Your task to perform on an android device: turn on showing notifications on the lock screen Image 0: 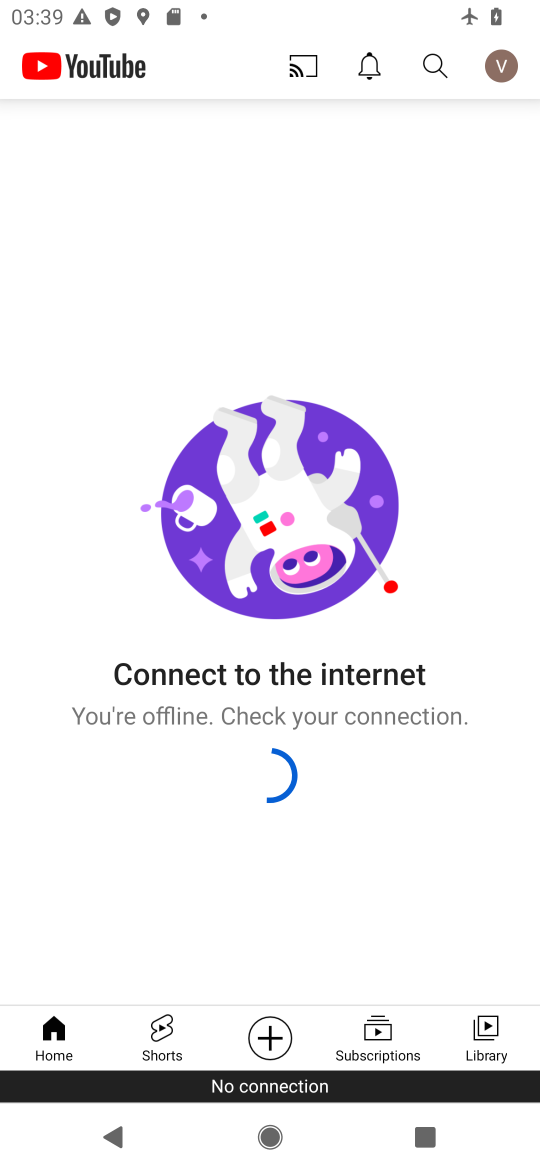
Step 0: press home button
Your task to perform on an android device: turn on showing notifications on the lock screen Image 1: 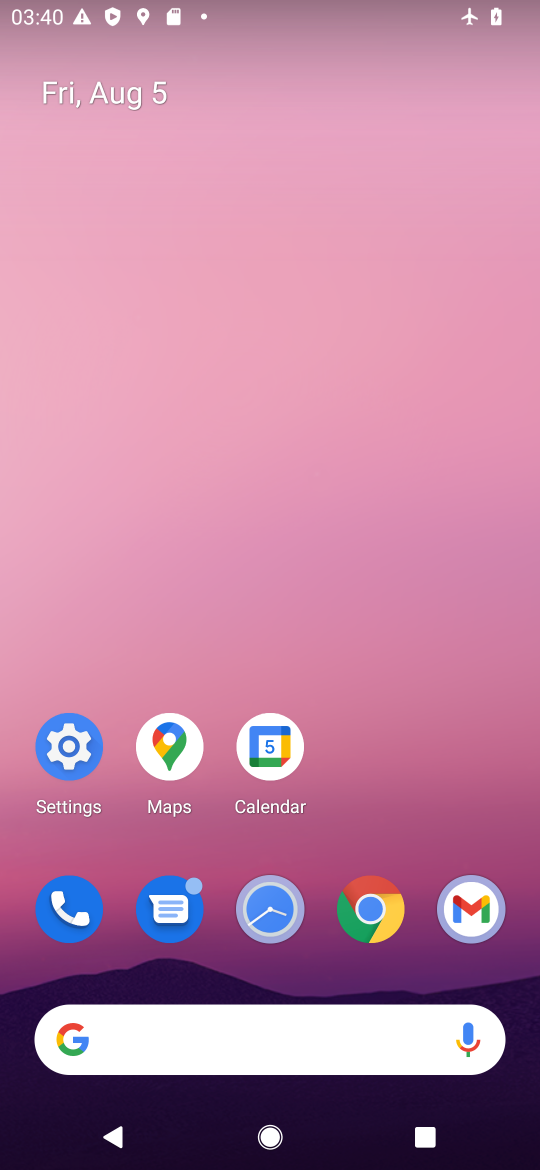
Step 1: click (65, 738)
Your task to perform on an android device: turn on showing notifications on the lock screen Image 2: 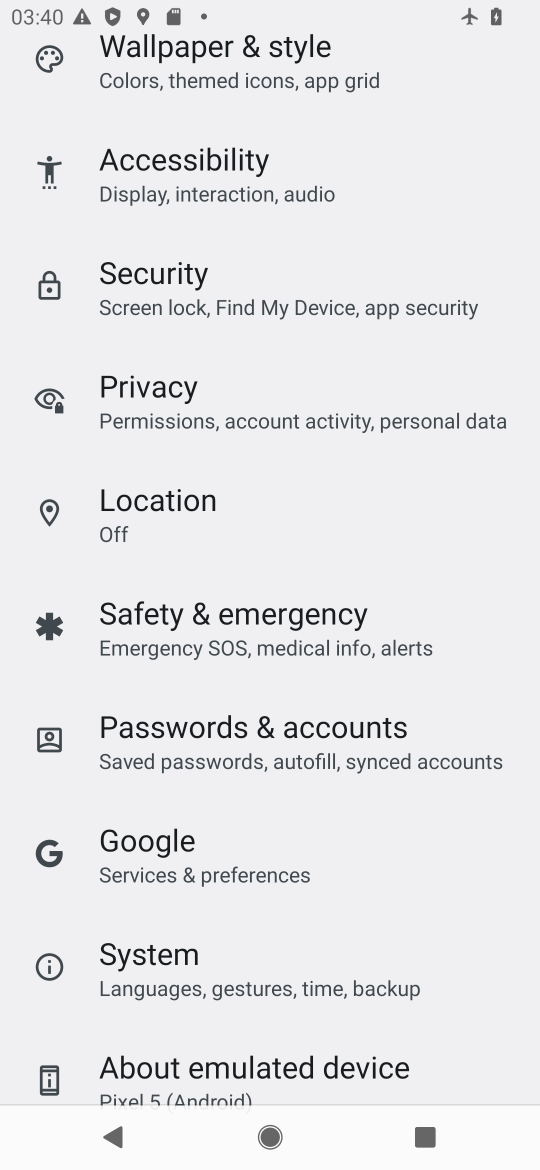
Step 2: drag from (330, 203) to (313, 703)
Your task to perform on an android device: turn on showing notifications on the lock screen Image 3: 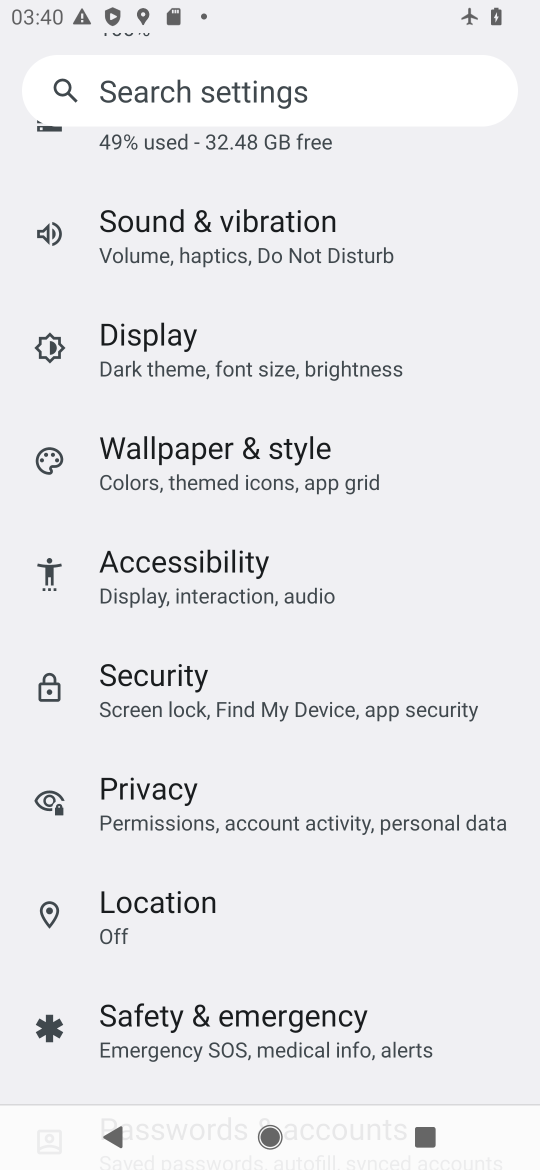
Step 3: drag from (362, 243) to (396, 679)
Your task to perform on an android device: turn on showing notifications on the lock screen Image 4: 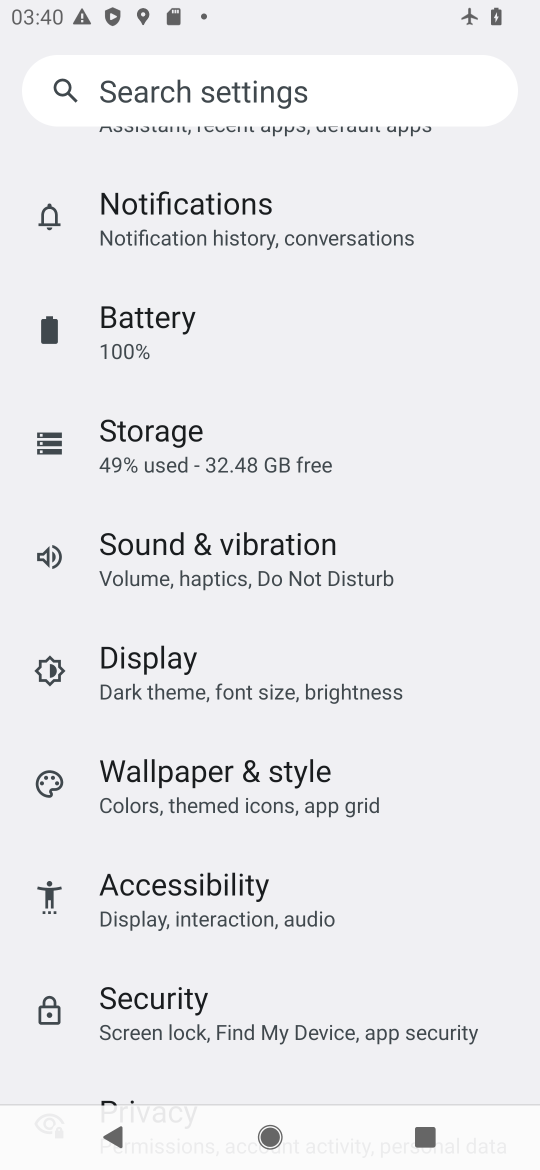
Step 4: drag from (328, 333) to (331, 711)
Your task to perform on an android device: turn on showing notifications on the lock screen Image 5: 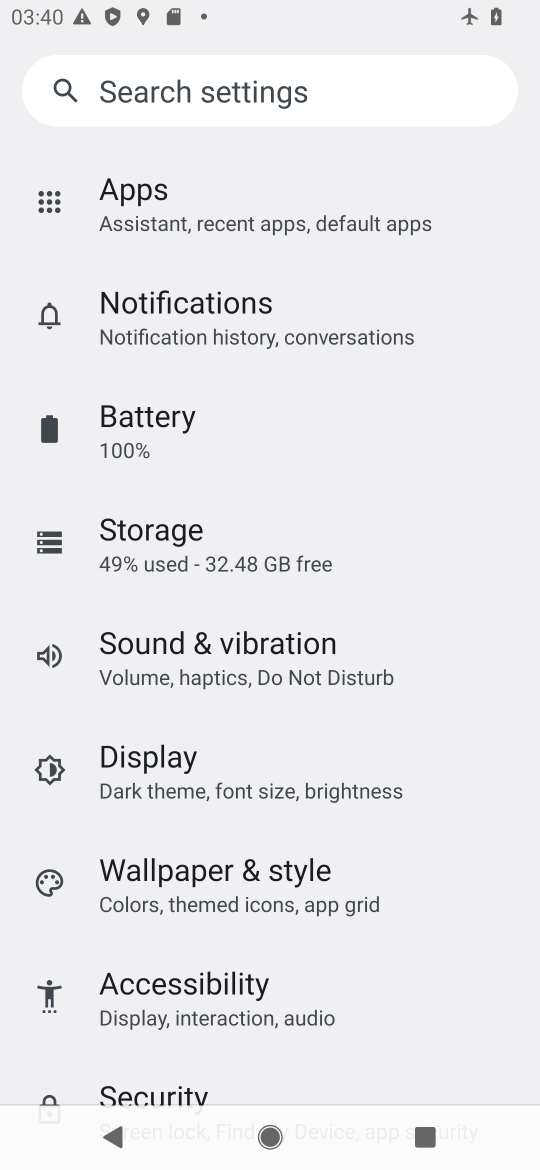
Step 5: click (190, 305)
Your task to perform on an android device: turn on showing notifications on the lock screen Image 6: 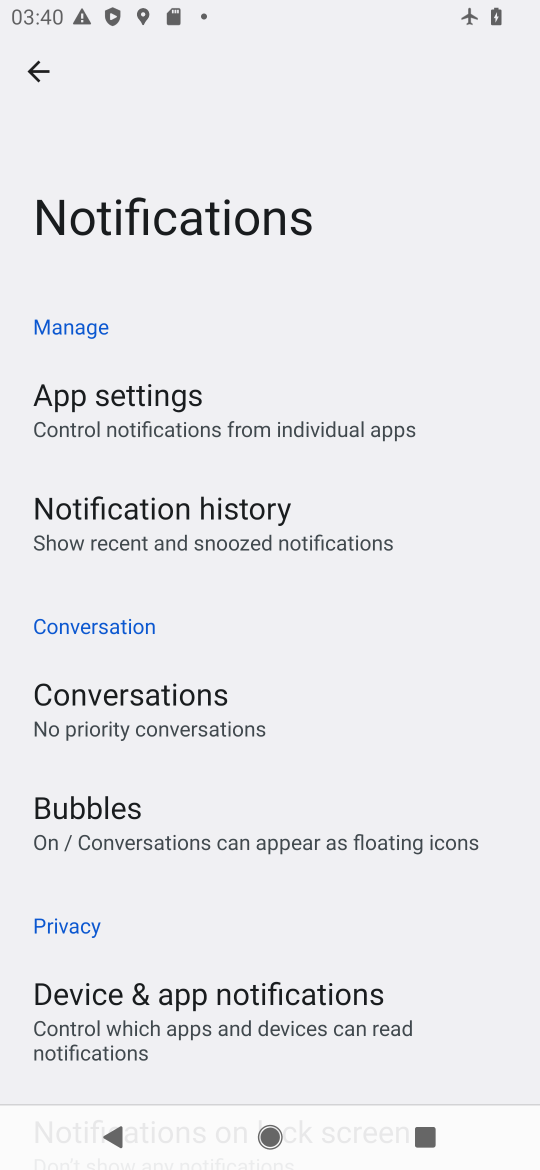
Step 6: drag from (340, 946) to (378, 399)
Your task to perform on an android device: turn on showing notifications on the lock screen Image 7: 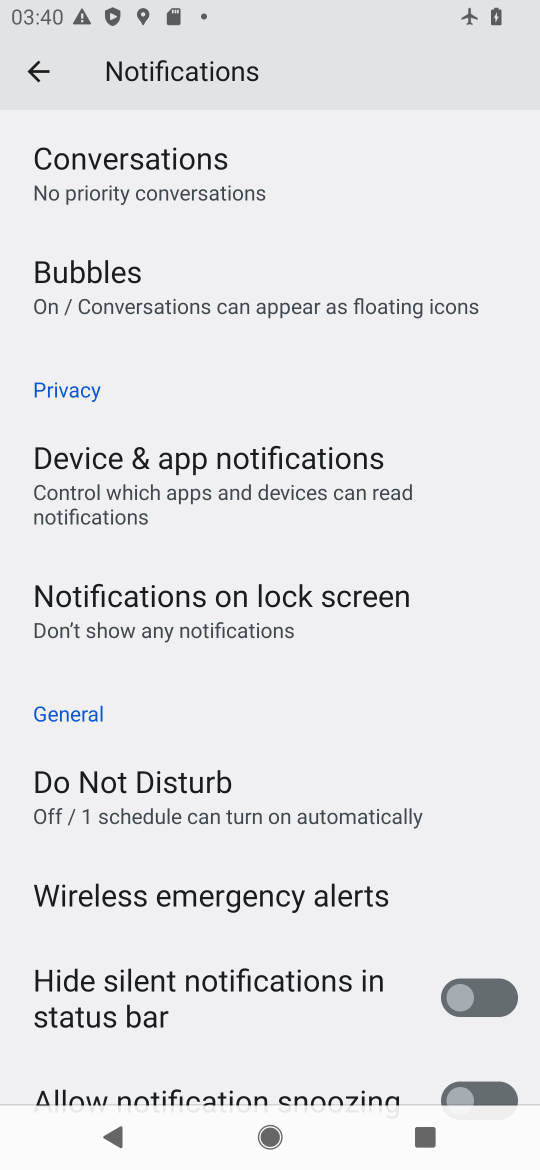
Step 7: click (242, 594)
Your task to perform on an android device: turn on showing notifications on the lock screen Image 8: 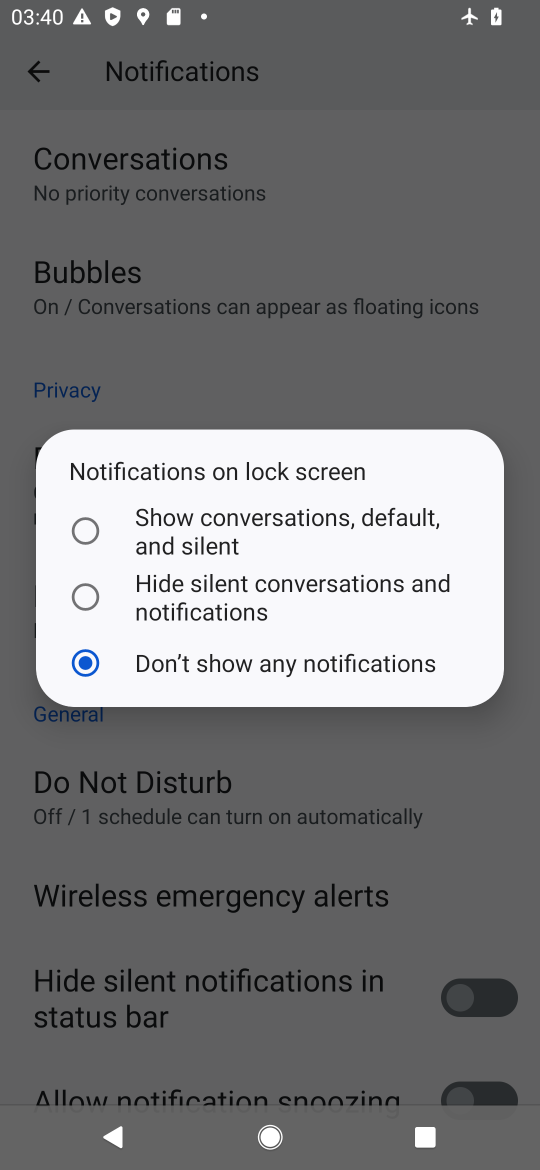
Step 8: click (83, 528)
Your task to perform on an android device: turn on showing notifications on the lock screen Image 9: 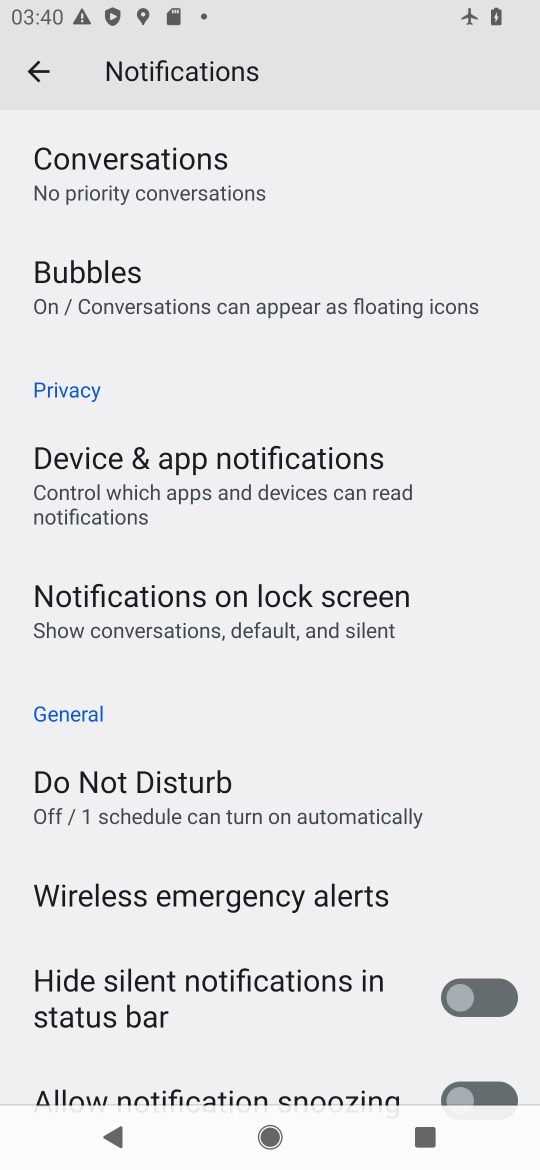
Step 9: task complete